Your task to perform on an android device: Do I have any events this weekend? Image 0: 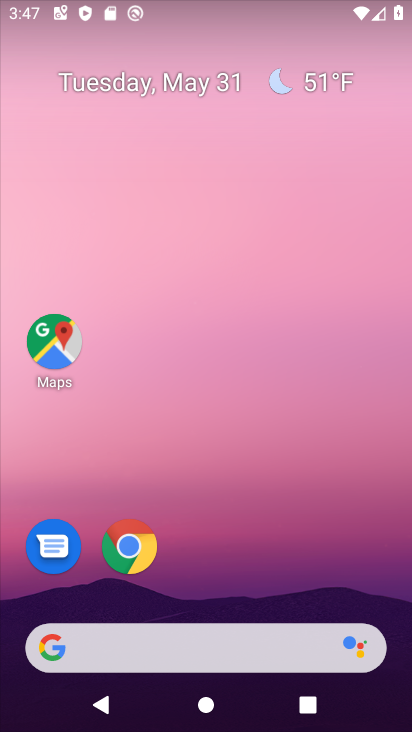
Step 0: drag from (185, 556) to (255, 125)
Your task to perform on an android device: Do I have any events this weekend? Image 1: 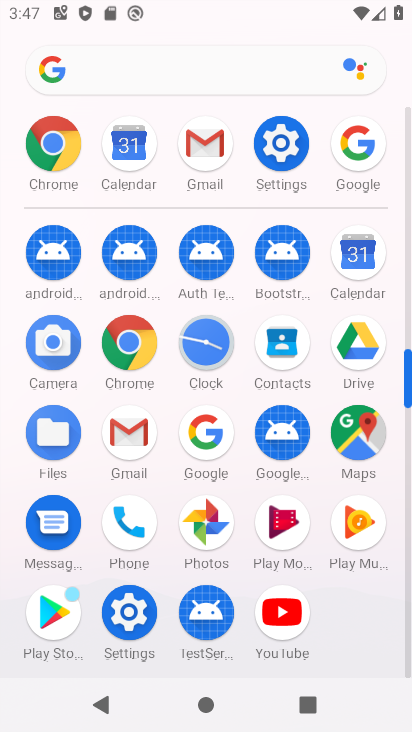
Step 1: click (359, 283)
Your task to perform on an android device: Do I have any events this weekend? Image 2: 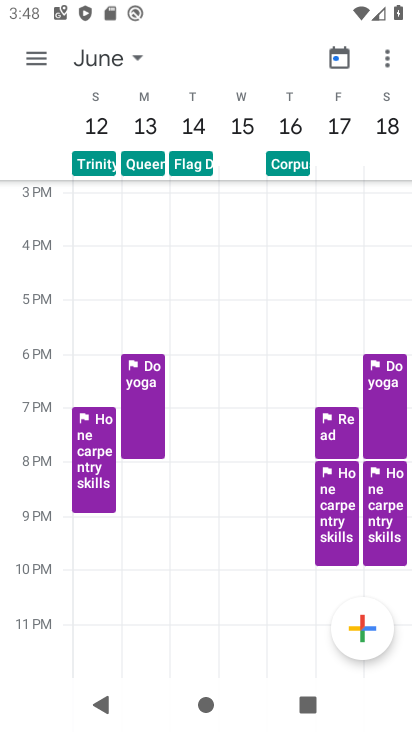
Step 2: click (88, 61)
Your task to perform on an android device: Do I have any events this weekend? Image 3: 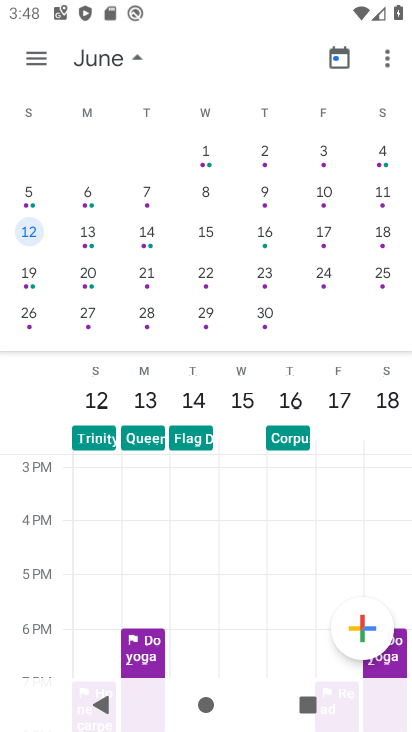
Step 3: click (199, 127)
Your task to perform on an android device: Do I have any events this weekend? Image 4: 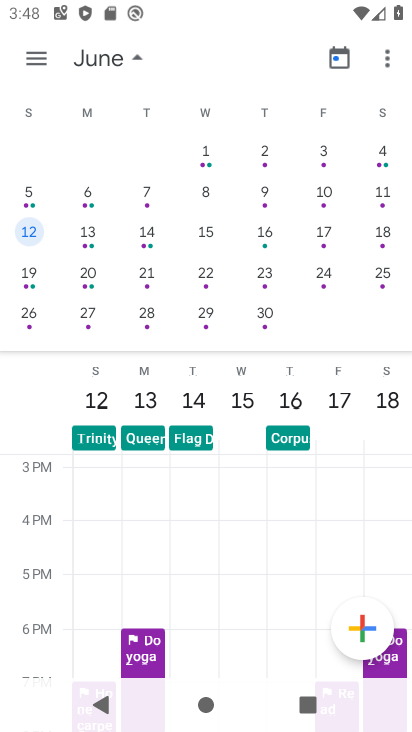
Step 4: drag from (140, 177) to (408, 253)
Your task to perform on an android device: Do I have any events this weekend? Image 5: 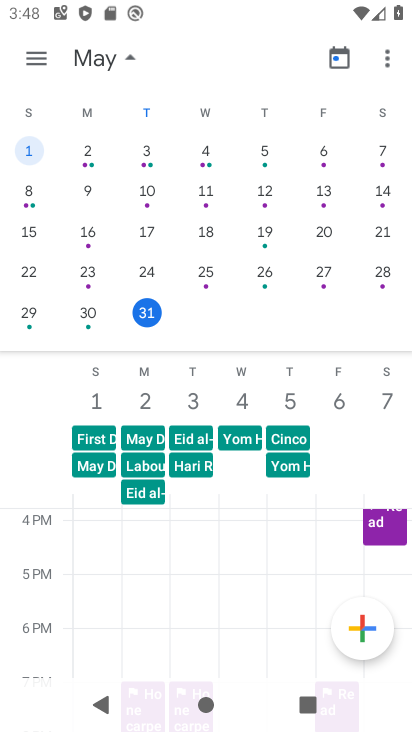
Step 5: click (32, 324)
Your task to perform on an android device: Do I have any events this weekend? Image 6: 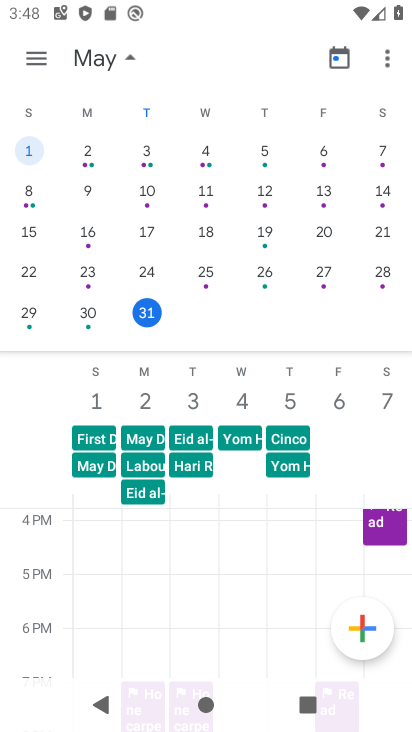
Step 6: click (29, 317)
Your task to perform on an android device: Do I have any events this weekend? Image 7: 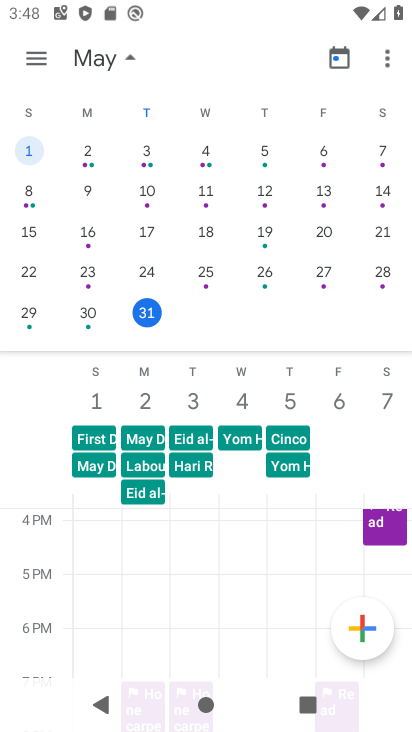
Step 7: click (29, 317)
Your task to perform on an android device: Do I have any events this weekend? Image 8: 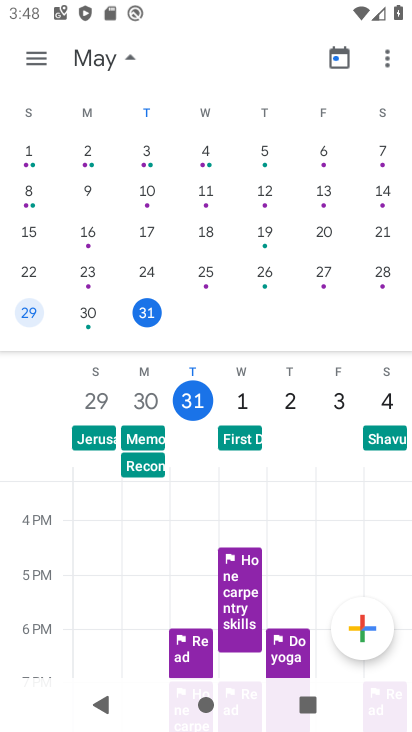
Step 8: task complete